Your task to perform on an android device: Search for Italian restaurants on Maps Image 0: 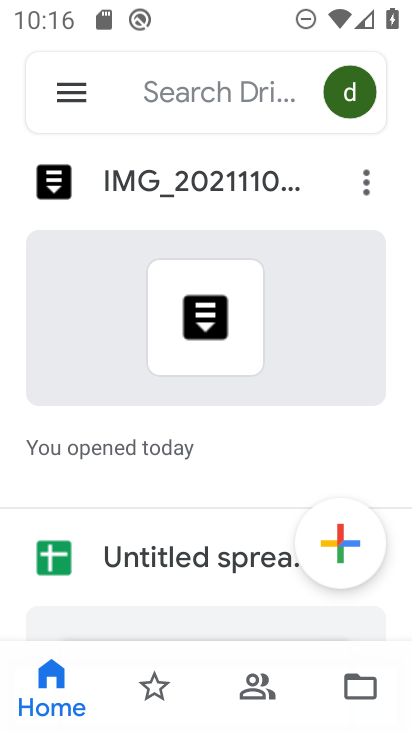
Step 0: press home button
Your task to perform on an android device: Search for Italian restaurants on Maps Image 1: 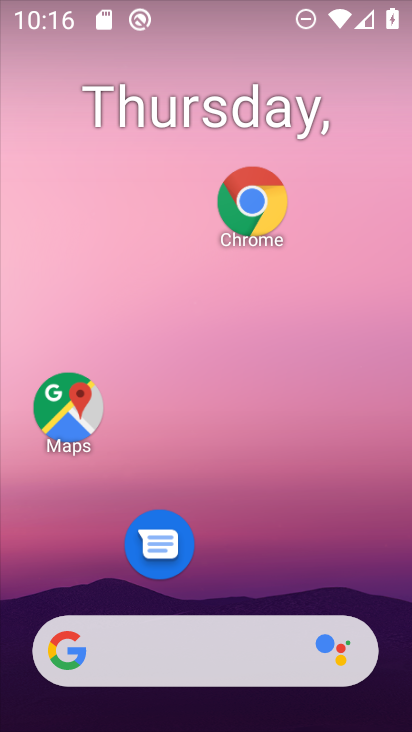
Step 1: drag from (226, 583) to (217, 37)
Your task to perform on an android device: Search for Italian restaurants on Maps Image 2: 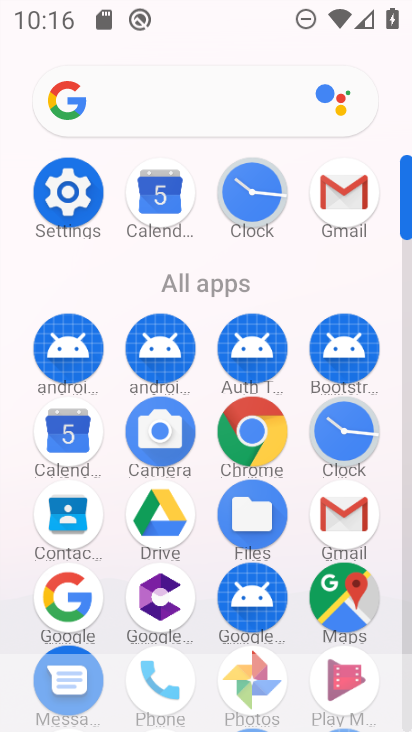
Step 2: click (341, 593)
Your task to perform on an android device: Search for Italian restaurants on Maps Image 3: 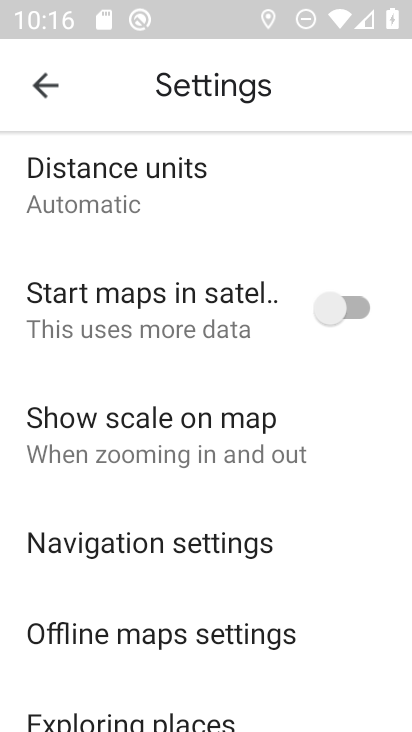
Step 3: click (47, 98)
Your task to perform on an android device: Search for Italian restaurants on Maps Image 4: 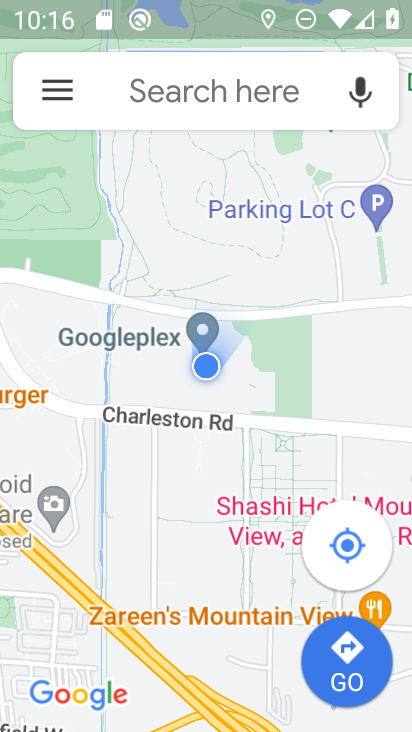
Step 4: click (65, 85)
Your task to perform on an android device: Search for Italian restaurants on Maps Image 5: 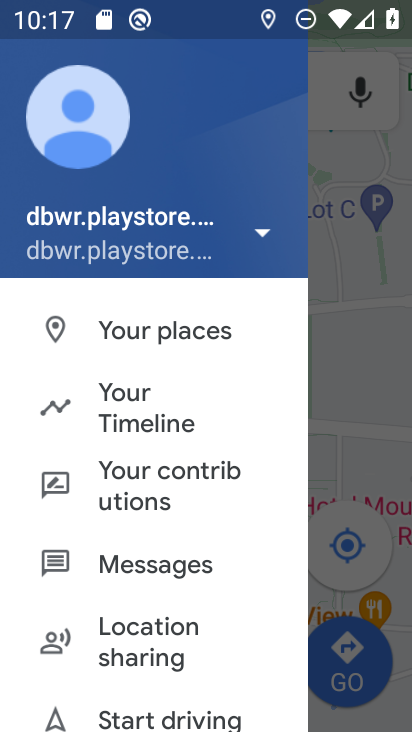
Step 5: click (328, 301)
Your task to perform on an android device: Search for Italian restaurants on Maps Image 6: 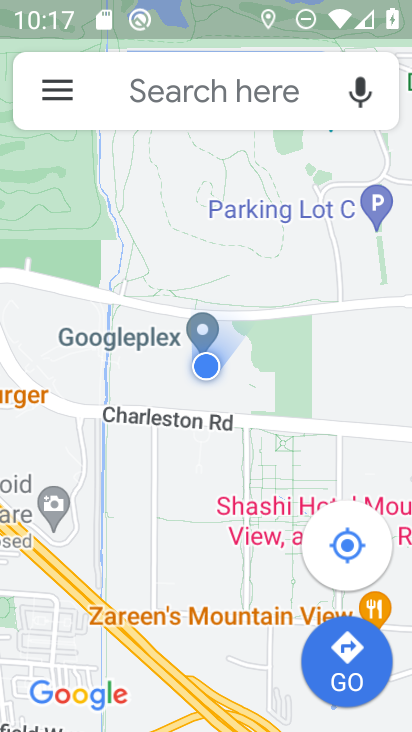
Step 6: click (171, 84)
Your task to perform on an android device: Search for Italian restaurants on Maps Image 7: 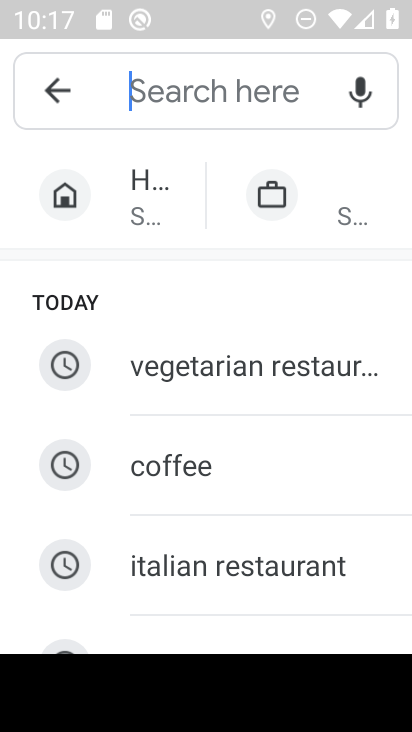
Step 7: click (216, 569)
Your task to perform on an android device: Search for Italian restaurants on Maps Image 8: 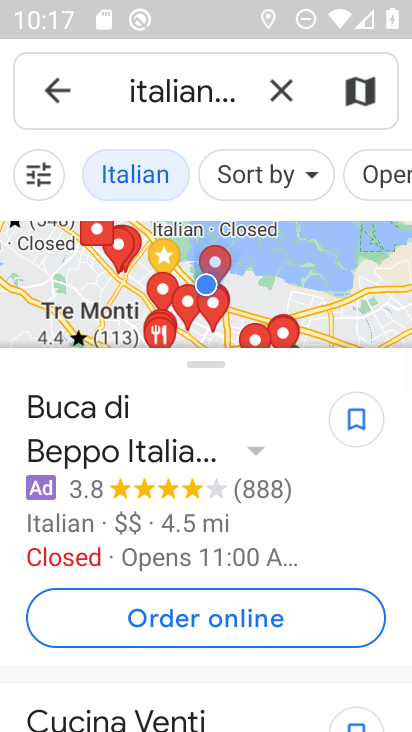
Step 8: task complete